Your task to perform on an android device: open a new tab in the chrome app Image 0: 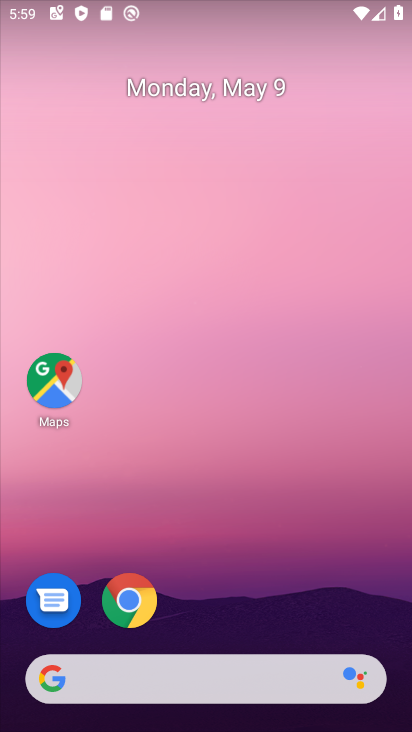
Step 0: click (135, 593)
Your task to perform on an android device: open a new tab in the chrome app Image 1: 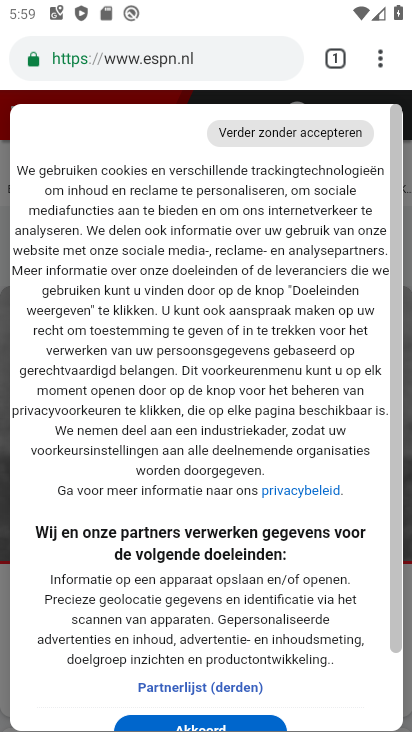
Step 1: click (376, 73)
Your task to perform on an android device: open a new tab in the chrome app Image 2: 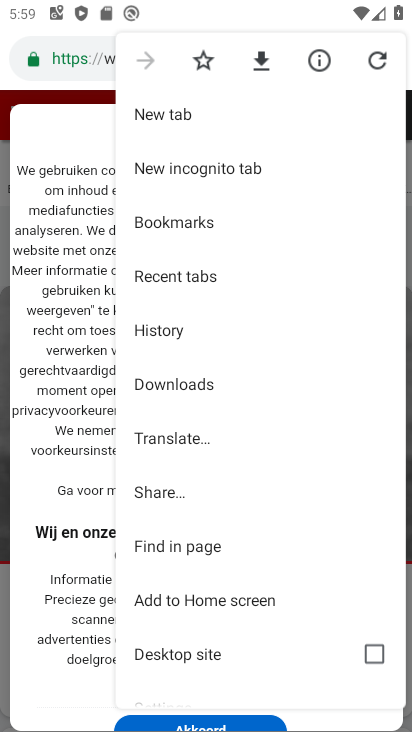
Step 2: click (174, 113)
Your task to perform on an android device: open a new tab in the chrome app Image 3: 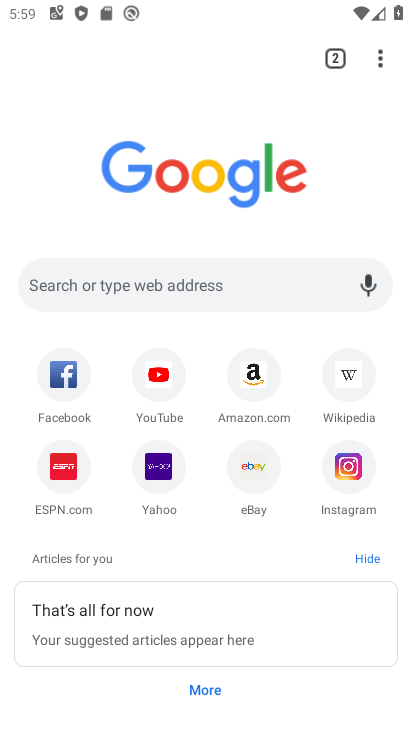
Step 3: task complete